Your task to perform on an android device: open a bookmark in the chrome app Image 0: 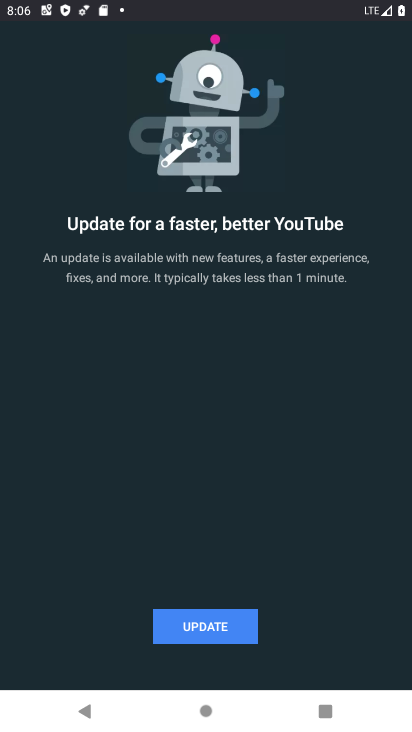
Step 0: press back button
Your task to perform on an android device: open a bookmark in the chrome app Image 1: 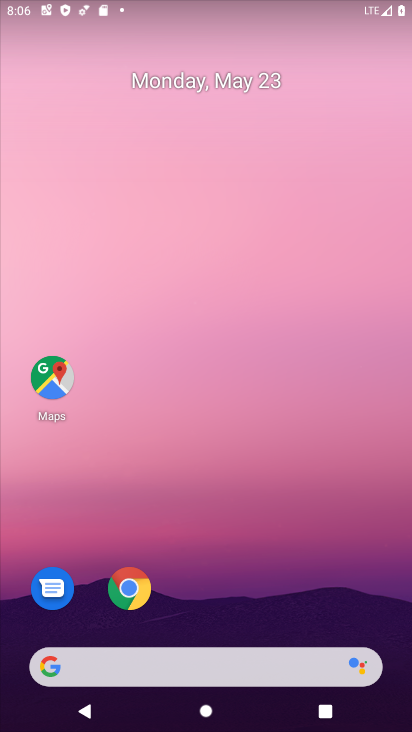
Step 1: click (127, 583)
Your task to perform on an android device: open a bookmark in the chrome app Image 2: 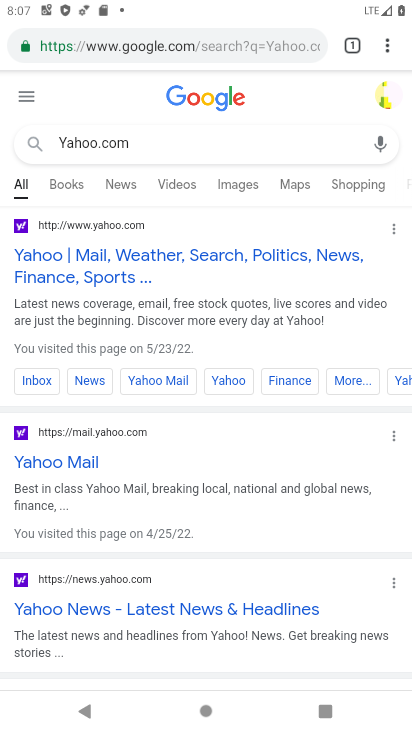
Step 2: click (384, 47)
Your task to perform on an android device: open a bookmark in the chrome app Image 3: 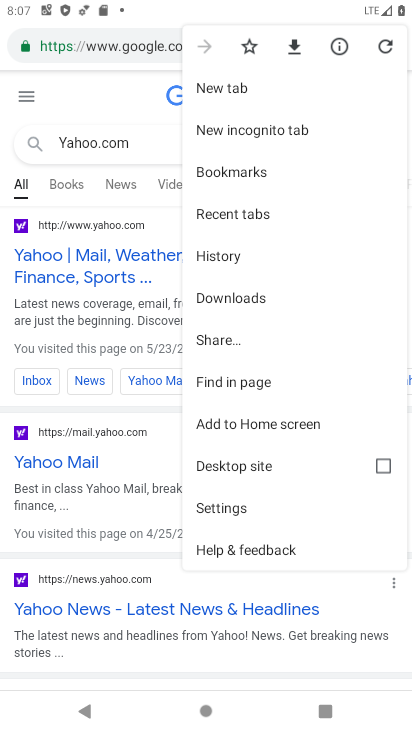
Step 3: click (235, 168)
Your task to perform on an android device: open a bookmark in the chrome app Image 4: 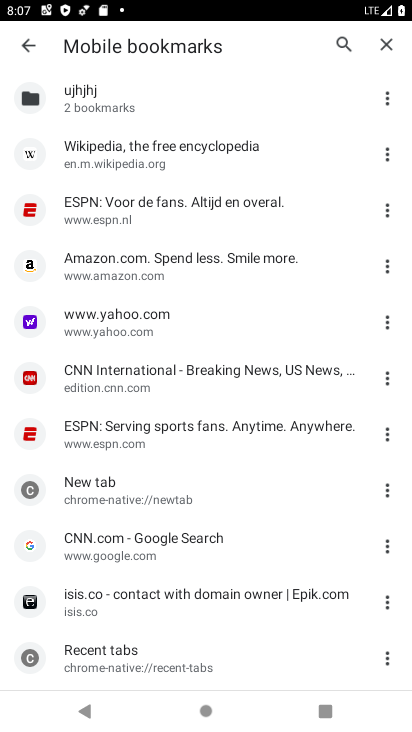
Step 4: click (95, 153)
Your task to perform on an android device: open a bookmark in the chrome app Image 5: 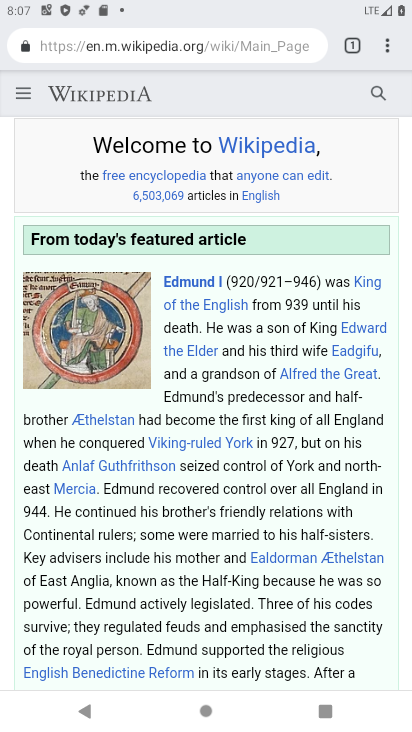
Step 5: task complete